Your task to perform on an android device: Go to CNN.com Image 0: 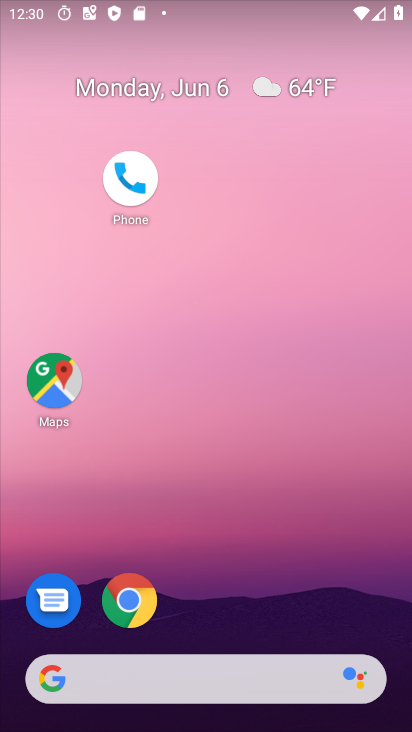
Step 0: drag from (270, 636) to (182, 46)
Your task to perform on an android device: Go to CNN.com Image 1: 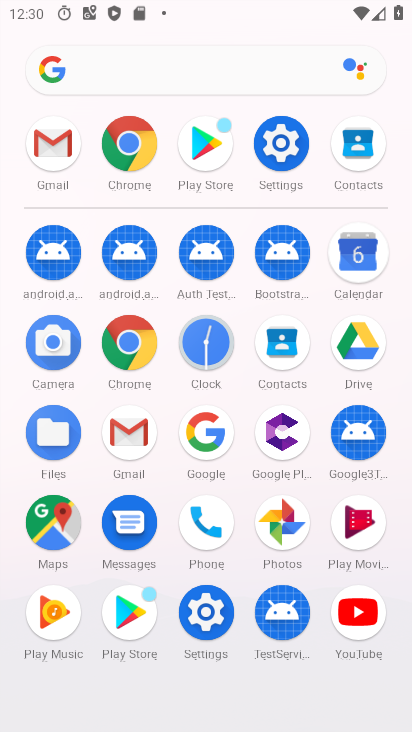
Step 1: click (127, 146)
Your task to perform on an android device: Go to CNN.com Image 2: 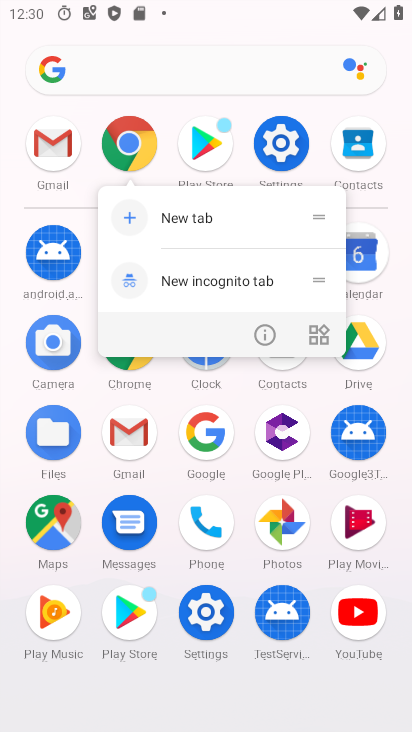
Step 2: click (184, 213)
Your task to perform on an android device: Go to CNN.com Image 3: 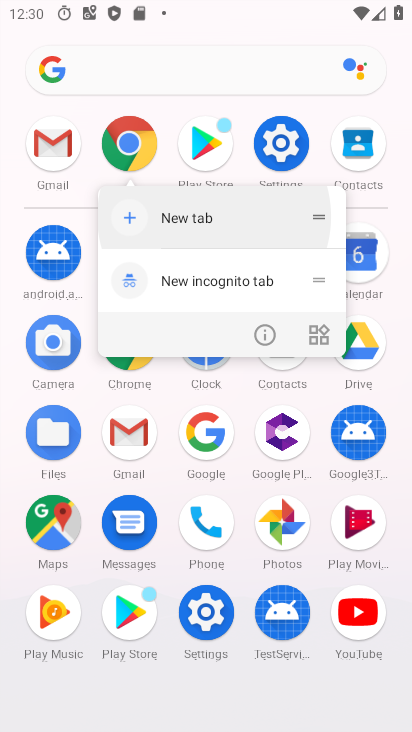
Step 3: click (184, 213)
Your task to perform on an android device: Go to CNN.com Image 4: 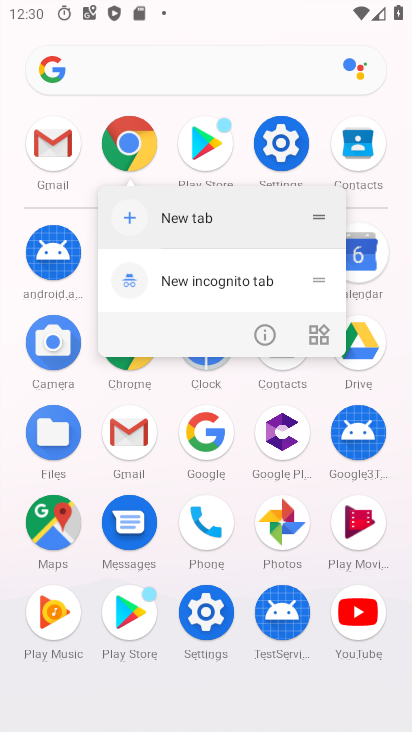
Step 4: click (184, 216)
Your task to perform on an android device: Go to CNN.com Image 5: 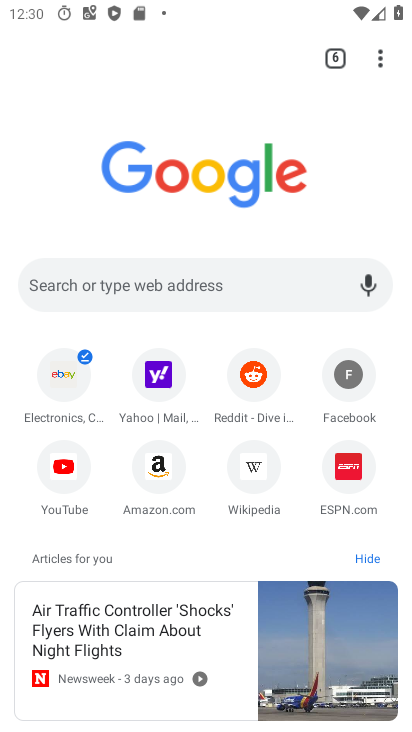
Step 5: click (65, 289)
Your task to perform on an android device: Go to CNN.com Image 6: 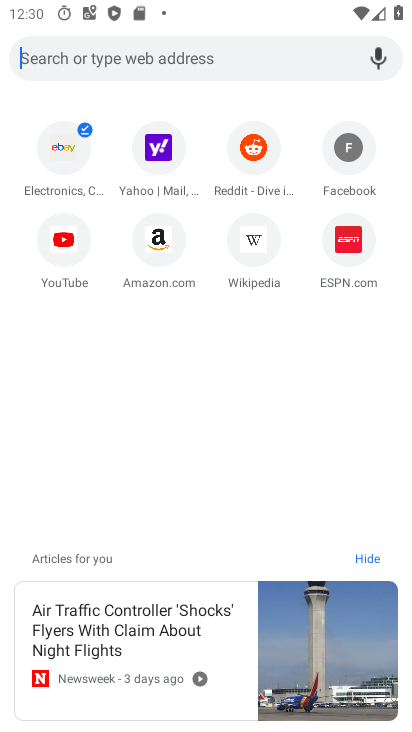
Step 6: click (65, 289)
Your task to perform on an android device: Go to CNN.com Image 7: 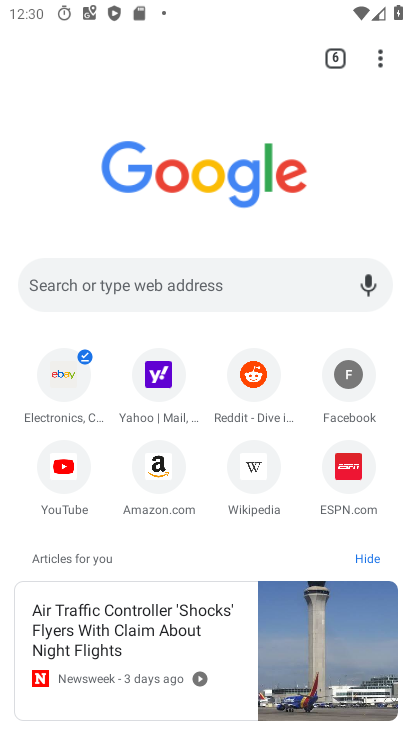
Step 7: type "cnn.com"
Your task to perform on an android device: Go to CNN.com Image 8: 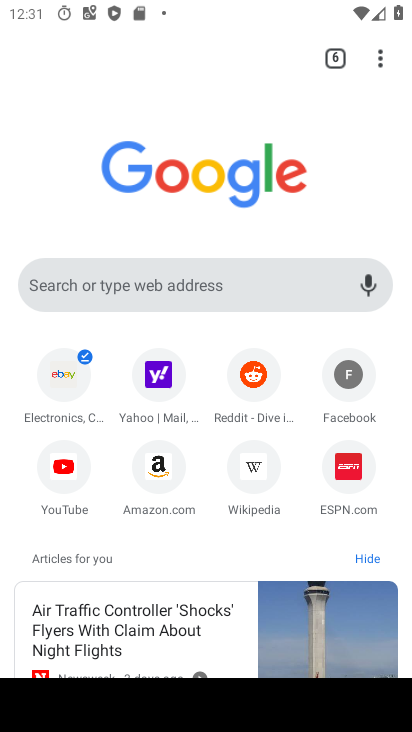
Step 8: click (77, 294)
Your task to perform on an android device: Go to CNN.com Image 9: 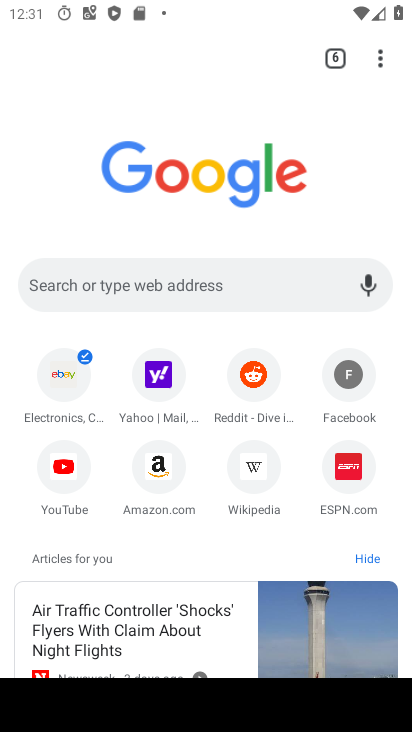
Step 9: click (72, 267)
Your task to perform on an android device: Go to CNN.com Image 10: 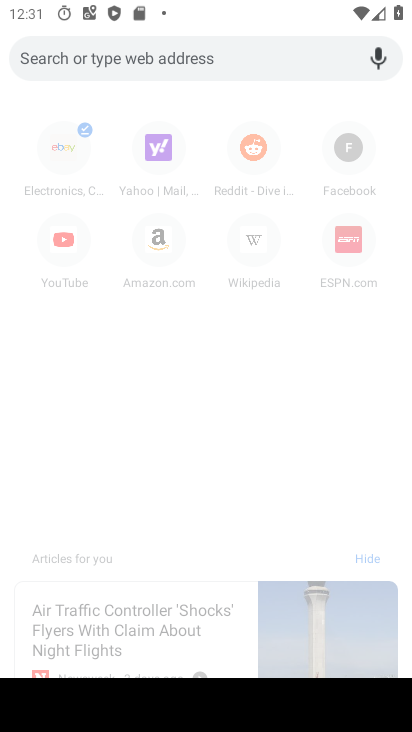
Step 10: type "cnn.com"
Your task to perform on an android device: Go to CNN.com Image 11: 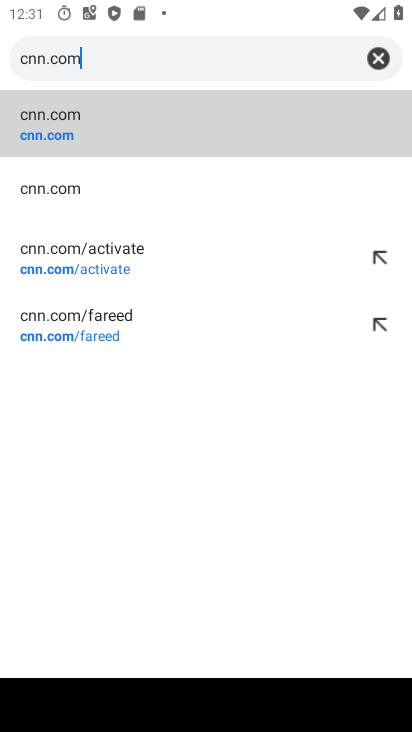
Step 11: click (51, 136)
Your task to perform on an android device: Go to CNN.com Image 12: 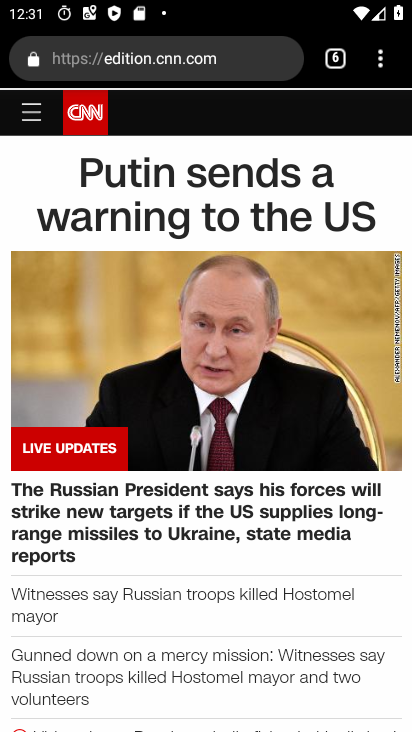
Step 12: task complete